Your task to perform on an android device: Open the phone app and click the voicemail tab. Image 0: 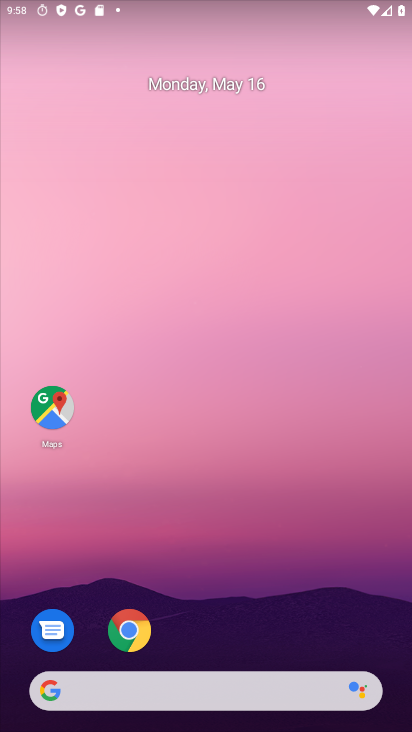
Step 0: drag from (228, 584) to (325, 9)
Your task to perform on an android device: Open the phone app and click the voicemail tab. Image 1: 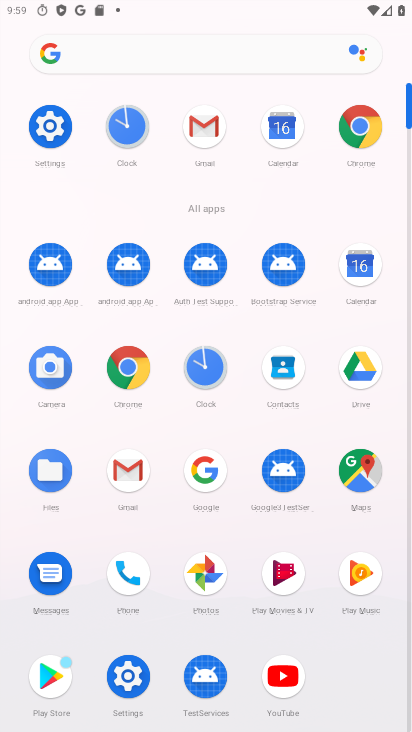
Step 1: click (138, 604)
Your task to perform on an android device: Open the phone app and click the voicemail tab. Image 2: 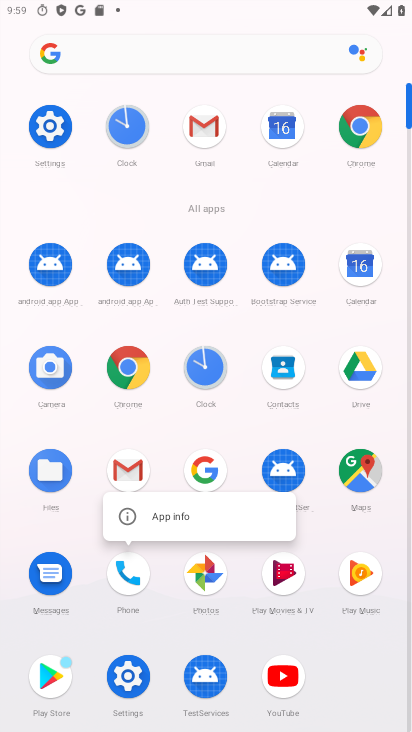
Step 2: click (141, 575)
Your task to perform on an android device: Open the phone app and click the voicemail tab. Image 3: 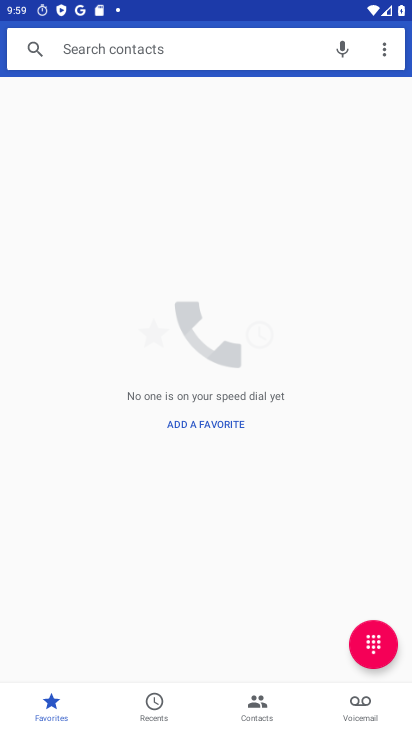
Step 3: click (358, 712)
Your task to perform on an android device: Open the phone app and click the voicemail tab. Image 4: 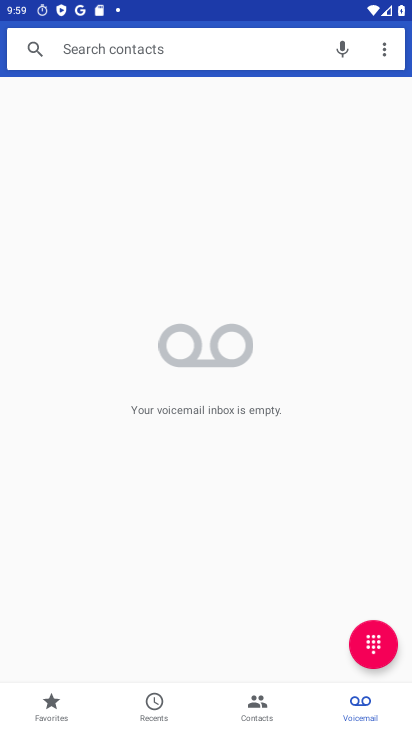
Step 4: task complete